Your task to perform on an android device: Go to location settings Image 0: 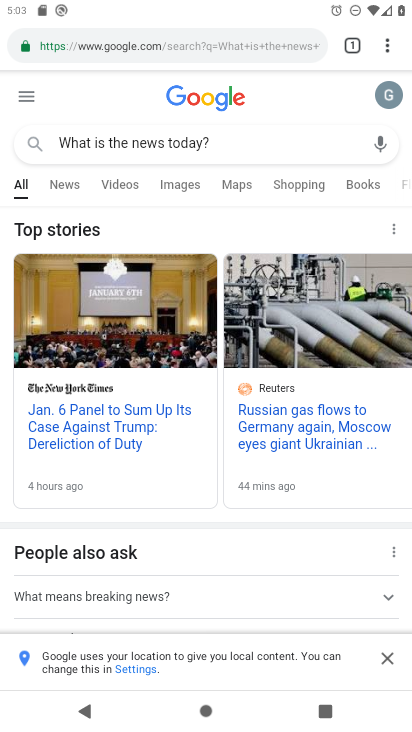
Step 0: press home button
Your task to perform on an android device: Go to location settings Image 1: 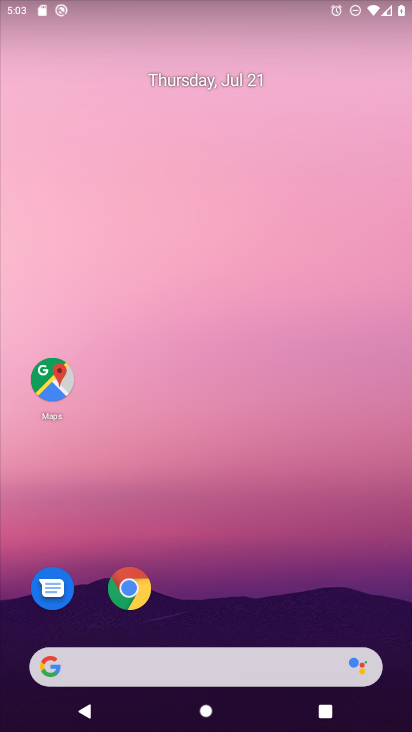
Step 1: drag from (256, 628) to (204, 145)
Your task to perform on an android device: Go to location settings Image 2: 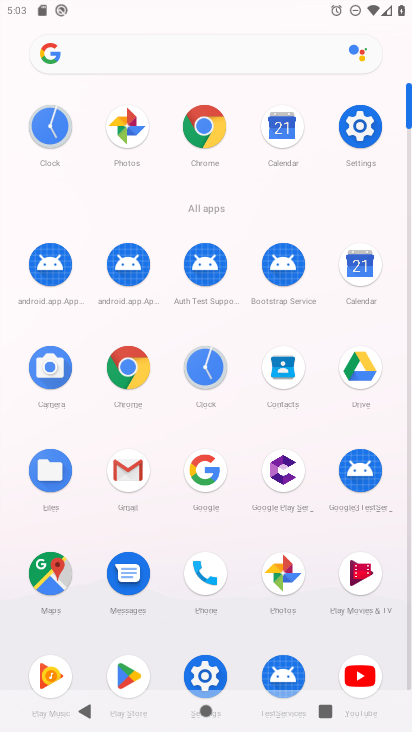
Step 2: click (356, 140)
Your task to perform on an android device: Go to location settings Image 3: 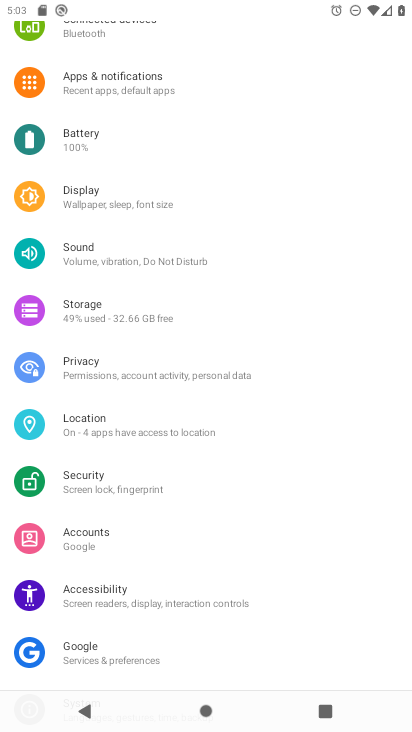
Step 3: click (174, 437)
Your task to perform on an android device: Go to location settings Image 4: 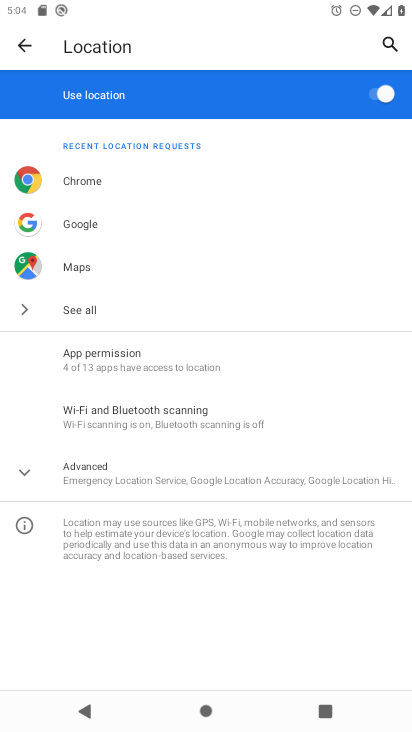
Step 4: task complete